Your task to perform on an android device: Go to Maps Image 0: 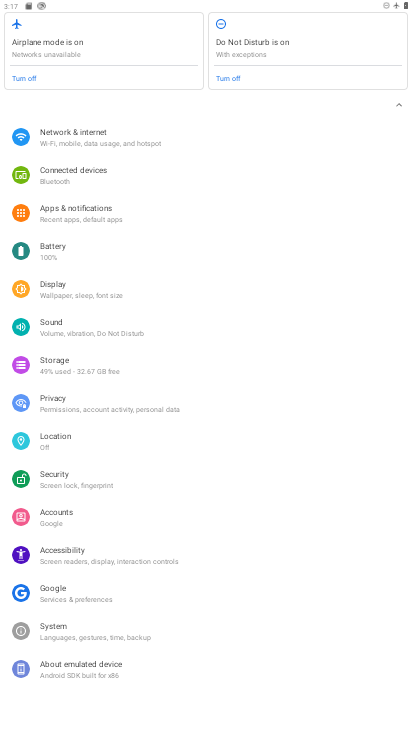
Step 0: press home button
Your task to perform on an android device: Go to Maps Image 1: 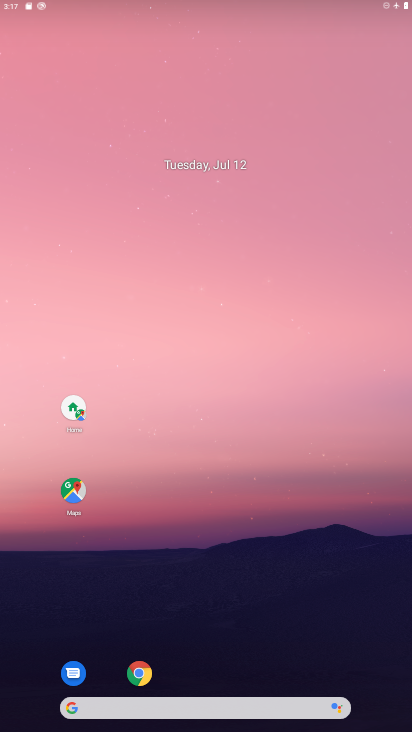
Step 1: drag from (227, 625) to (188, 233)
Your task to perform on an android device: Go to Maps Image 2: 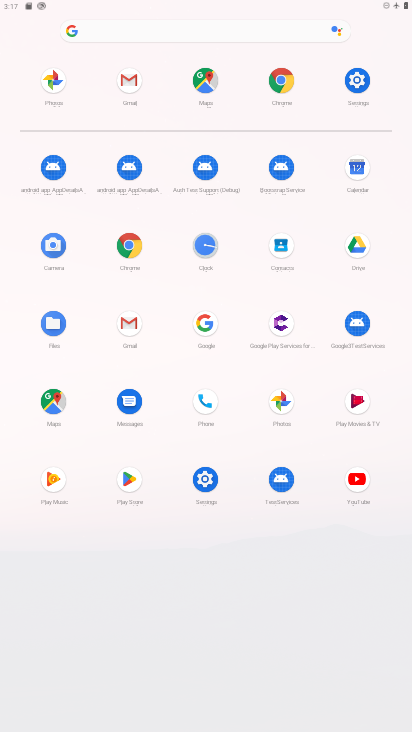
Step 2: click (42, 401)
Your task to perform on an android device: Go to Maps Image 3: 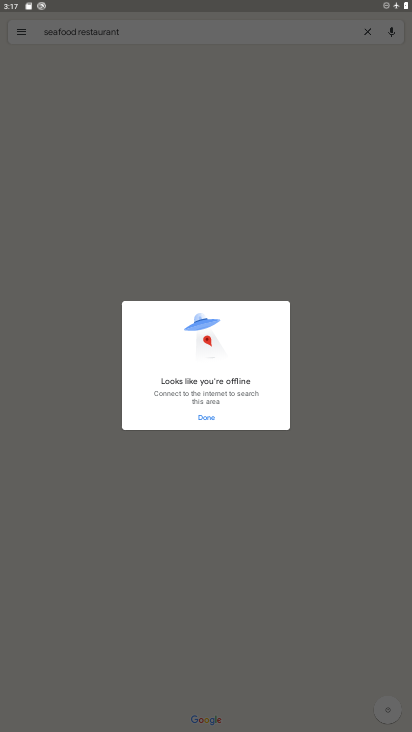
Step 3: task complete